Your task to perform on an android device: check storage Image 0: 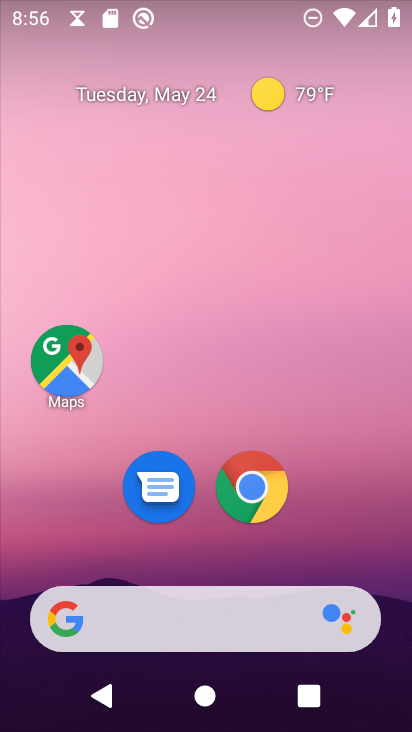
Step 0: click (394, 480)
Your task to perform on an android device: check storage Image 1: 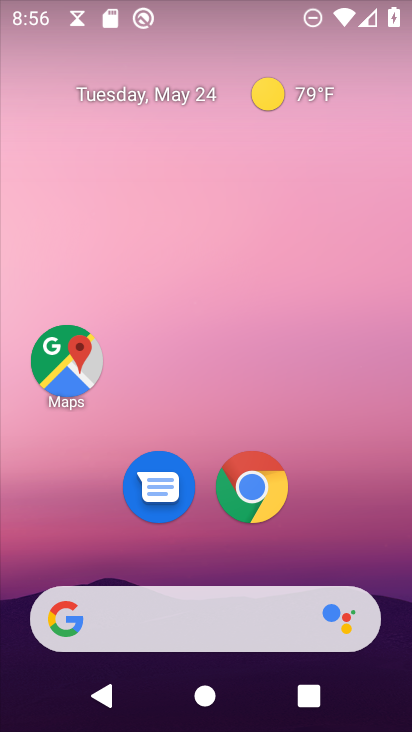
Step 1: drag from (6, 715) to (233, 200)
Your task to perform on an android device: check storage Image 2: 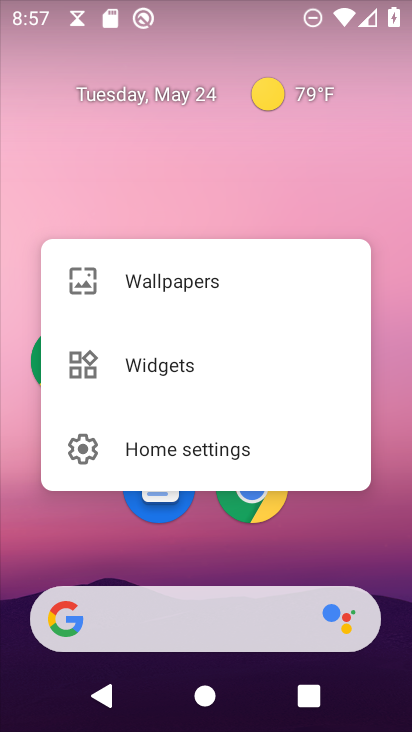
Step 2: press home button
Your task to perform on an android device: check storage Image 3: 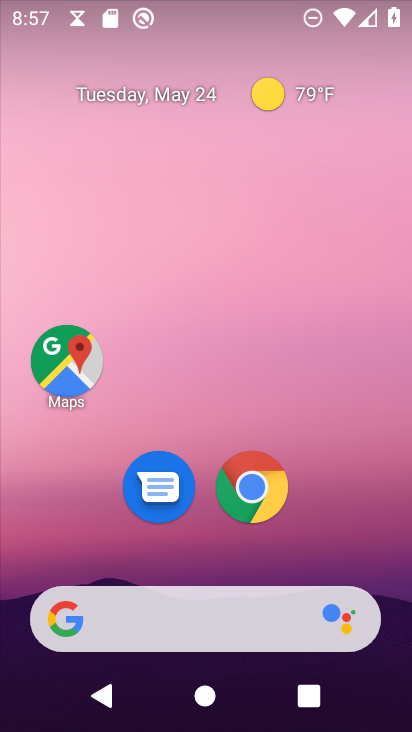
Step 3: drag from (29, 540) to (155, 131)
Your task to perform on an android device: check storage Image 4: 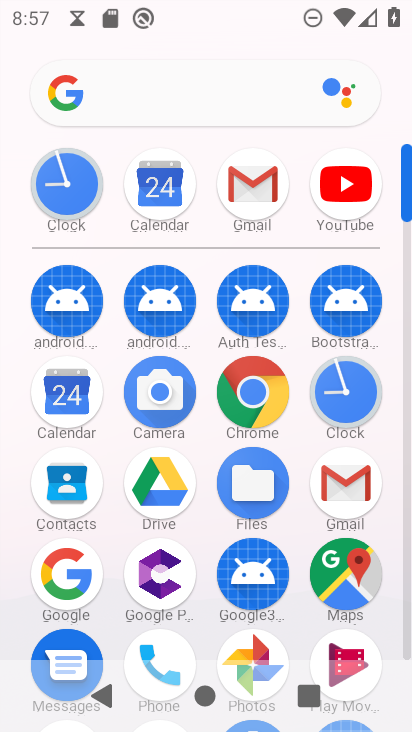
Step 4: drag from (11, 456) to (138, 142)
Your task to perform on an android device: check storage Image 5: 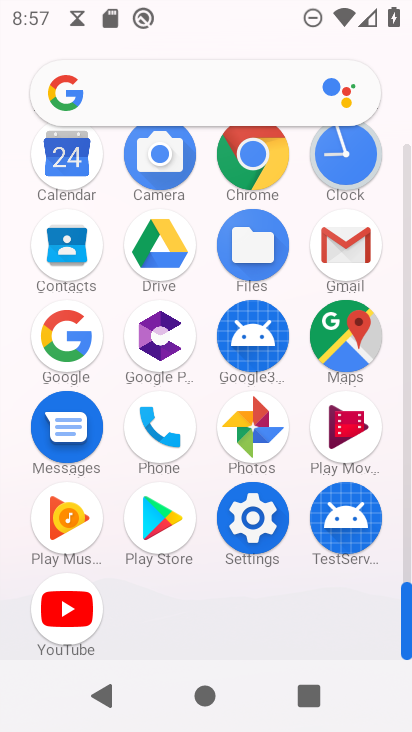
Step 5: click (261, 506)
Your task to perform on an android device: check storage Image 6: 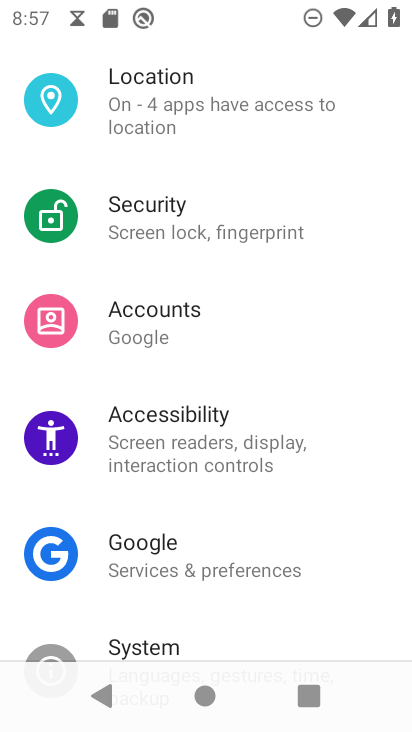
Step 6: drag from (162, 153) to (140, 637)
Your task to perform on an android device: check storage Image 7: 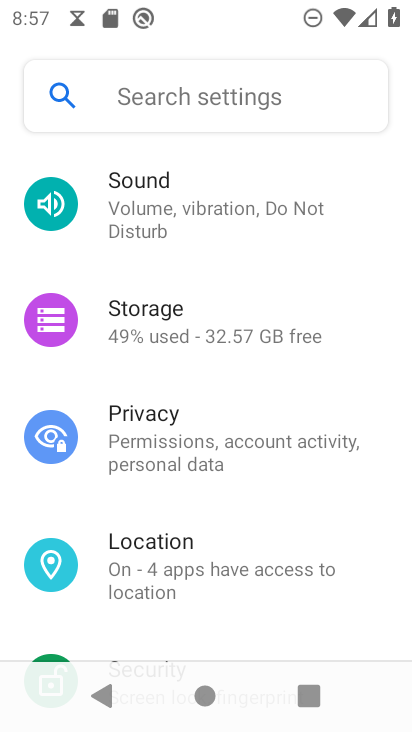
Step 7: click (161, 303)
Your task to perform on an android device: check storage Image 8: 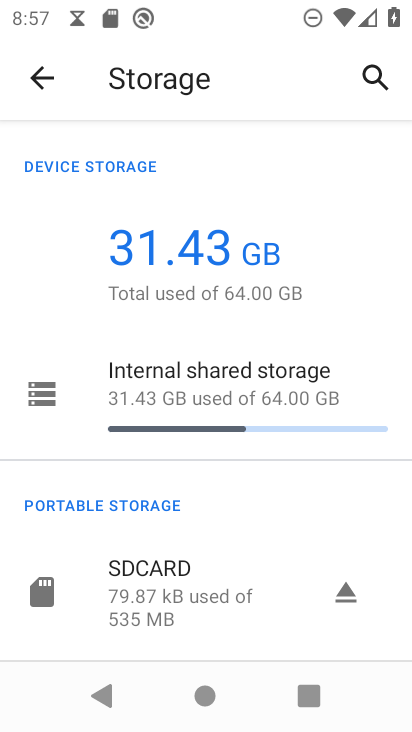
Step 8: task complete